Your task to perform on an android device: Open the phone app and click the voicemail tab. Image 0: 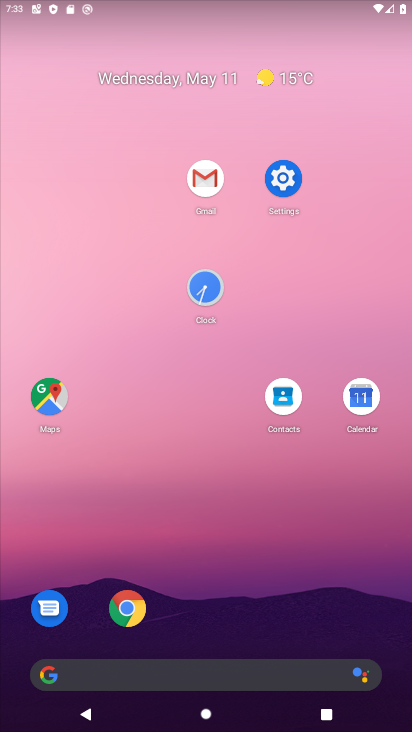
Step 0: click (290, 199)
Your task to perform on an android device: Open the phone app and click the voicemail tab. Image 1: 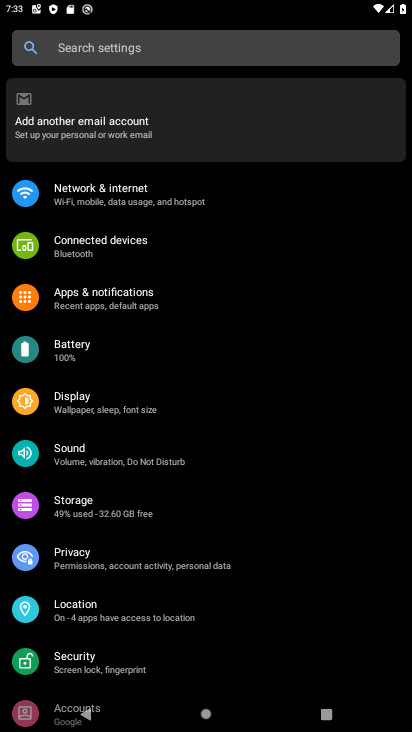
Step 1: press home button
Your task to perform on an android device: Open the phone app and click the voicemail tab. Image 2: 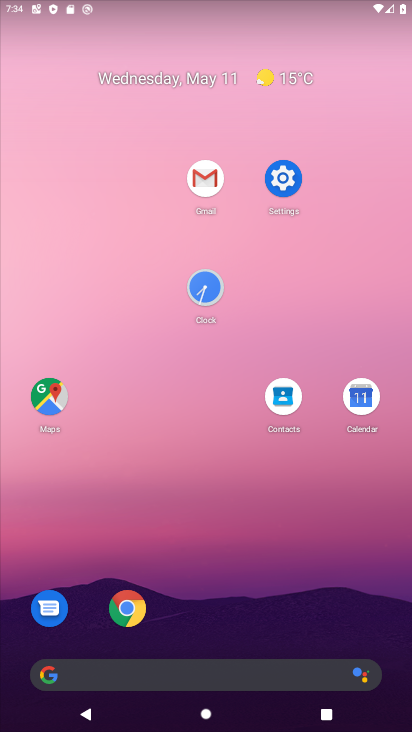
Step 2: drag from (246, 585) to (187, 126)
Your task to perform on an android device: Open the phone app and click the voicemail tab. Image 3: 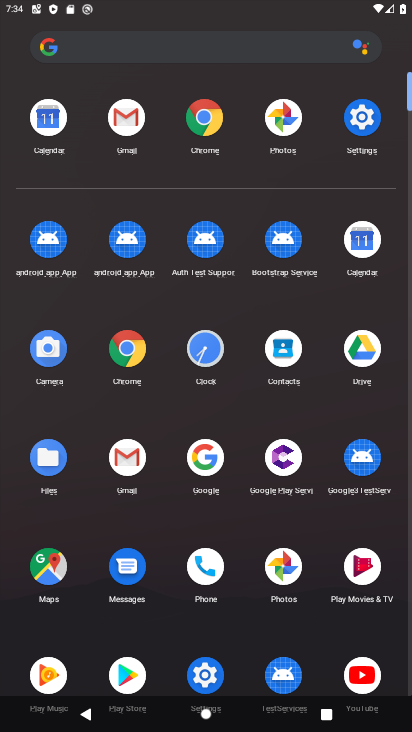
Step 3: click (411, 693)
Your task to perform on an android device: Open the phone app and click the voicemail tab. Image 4: 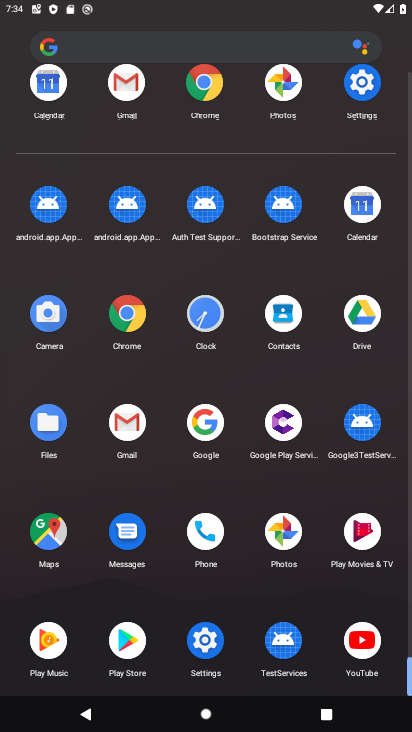
Step 4: click (226, 557)
Your task to perform on an android device: Open the phone app and click the voicemail tab. Image 5: 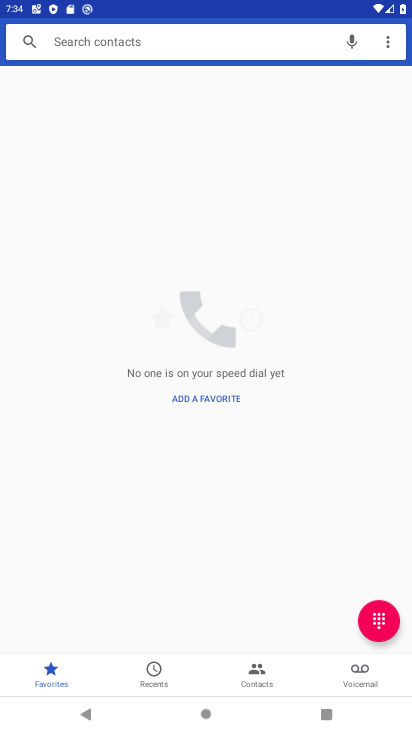
Step 5: click (352, 659)
Your task to perform on an android device: Open the phone app and click the voicemail tab. Image 6: 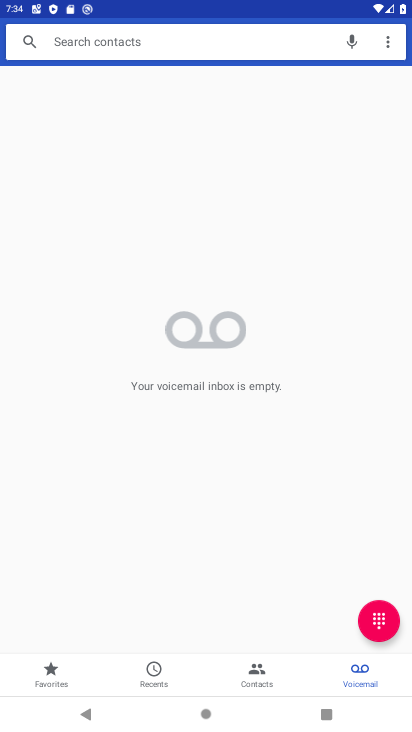
Step 6: task complete